Your task to perform on an android device: Do I have any events tomorrow? Image 0: 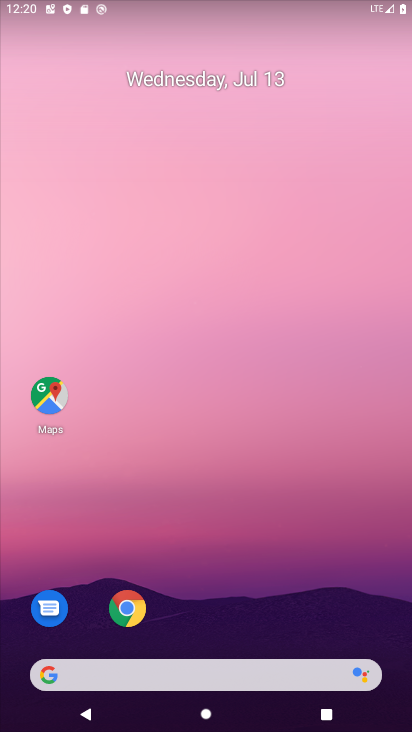
Step 0: click (192, 668)
Your task to perform on an android device: Do I have any events tomorrow? Image 1: 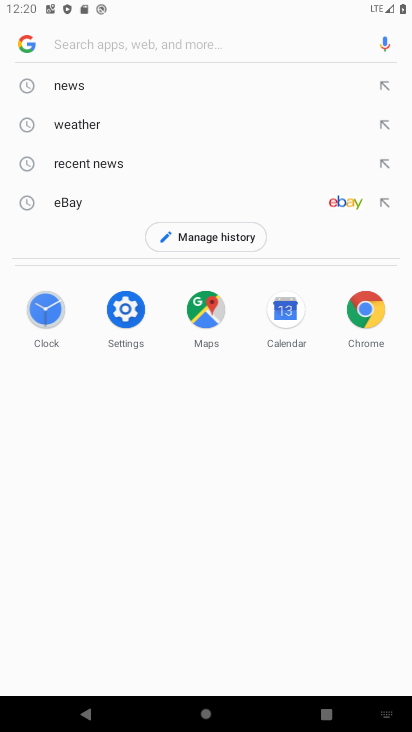
Step 1: click (80, 127)
Your task to perform on an android device: Do I have any events tomorrow? Image 2: 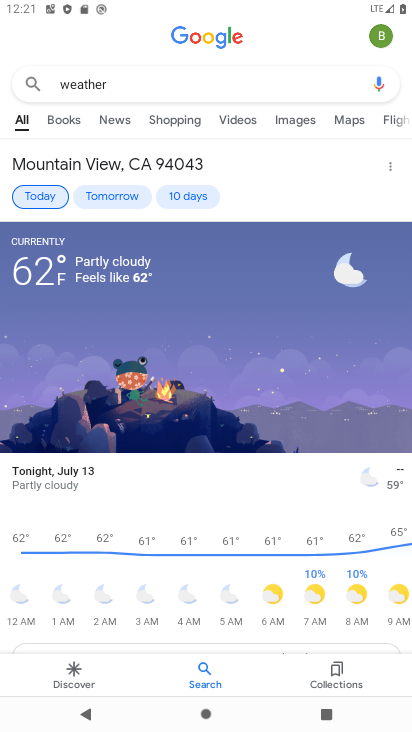
Step 2: click (117, 202)
Your task to perform on an android device: Do I have any events tomorrow? Image 3: 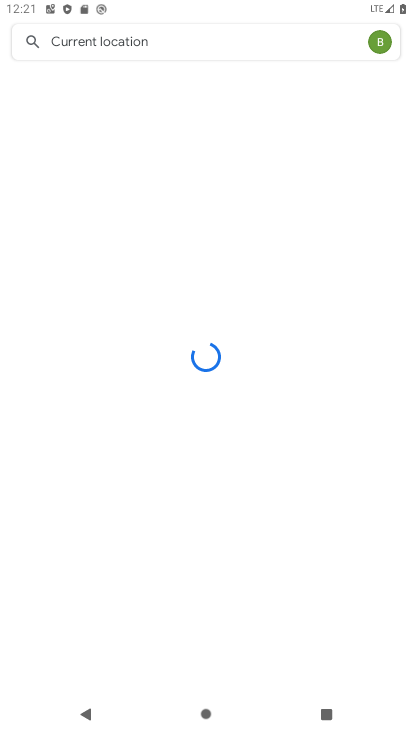
Step 3: press back button
Your task to perform on an android device: Do I have any events tomorrow? Image 4: 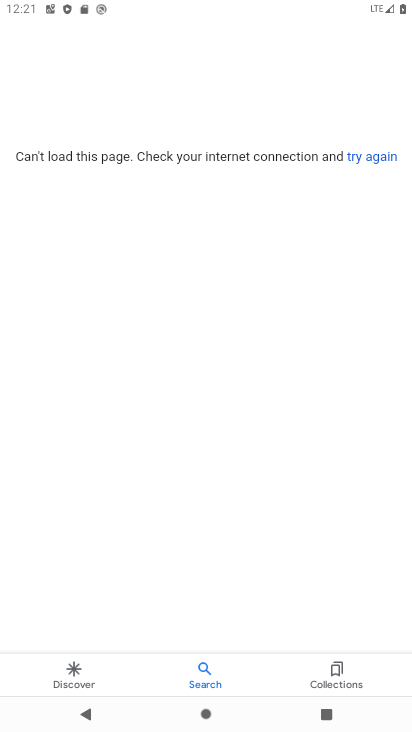
Step 4: press back button
Your task to perform on an android device: Do I have any events tomorrow? Image 5: 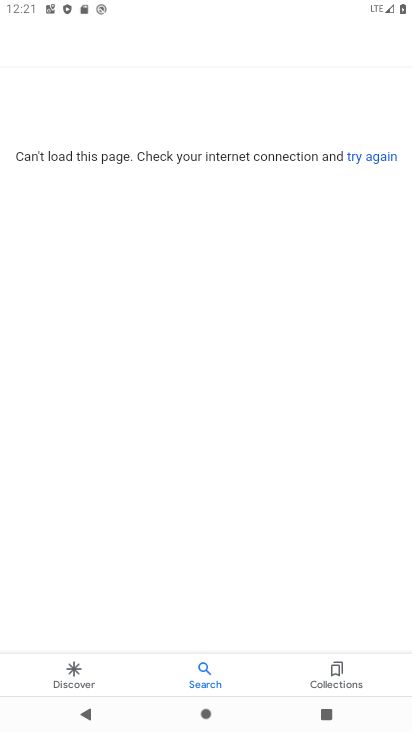
Step 5: press back button
Your task to perform on an android device: Do I have any events tomorrow? Image 6: 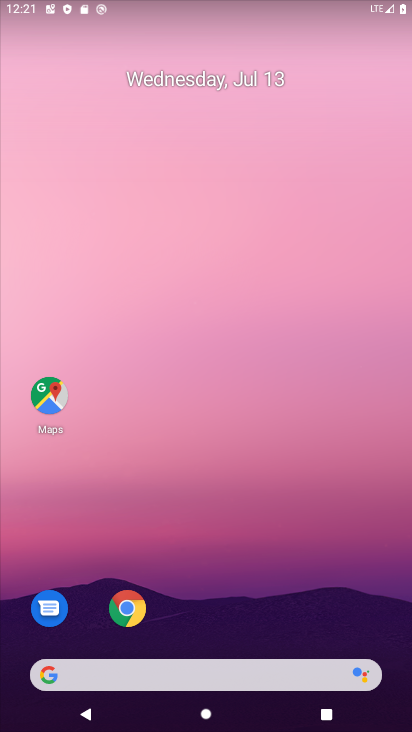
Step 6: drag from (252, 626) to (279, 0)
Your task to perform on an android device: Do I have any events tomorrow? Image 7: 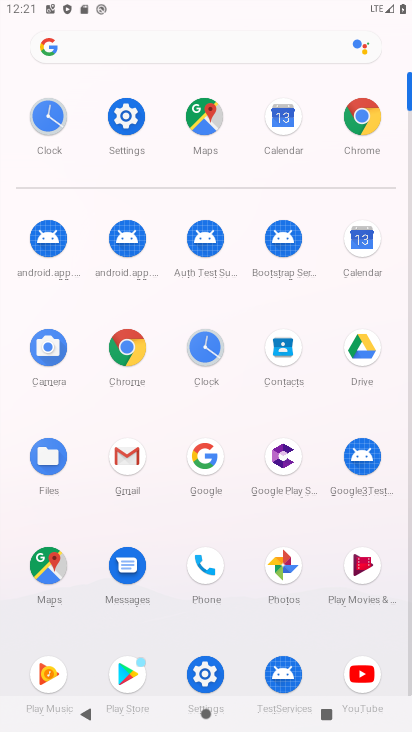
Step 7: click (363, 256)
Your task to perform on an android device: Do I have any events tomorrow? Image 8: 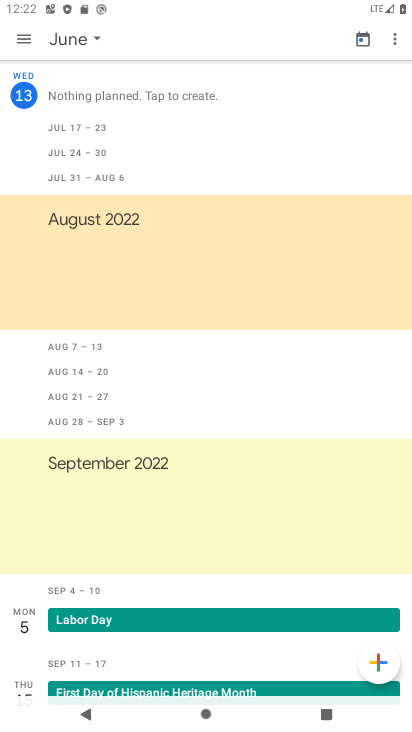
Step 8: click (88, 41)
Your task to perform on an android device: Do I have any events tomorrow? Image 9: 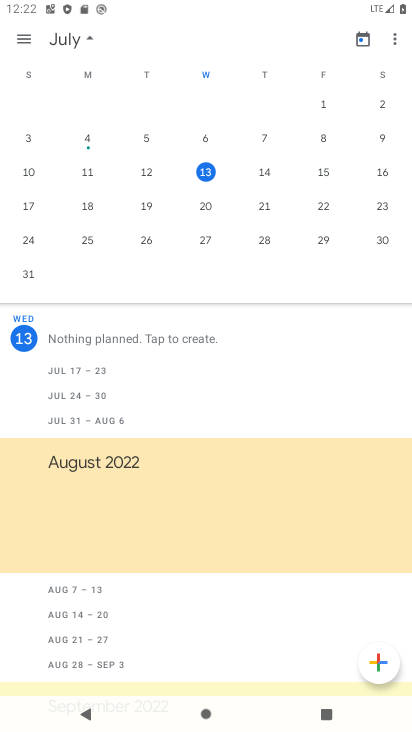
Step 9: click (207, 163)
Your task to perform on an android device: Do I have any events tomorrow? Image 10: 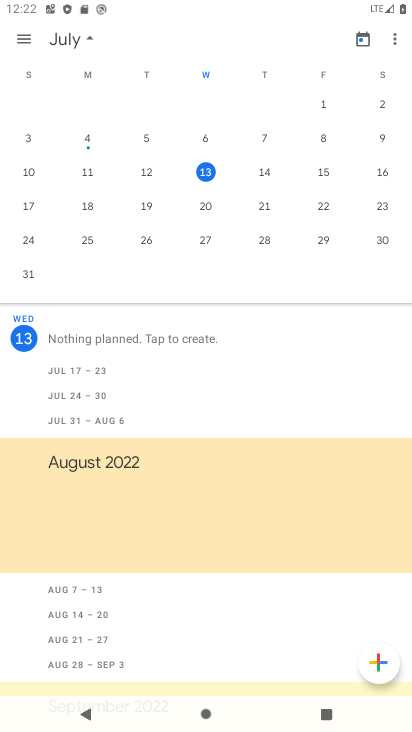
Step 10: task complete